Your task to perform on an android device: Open Maps and search for coffee Image 0: 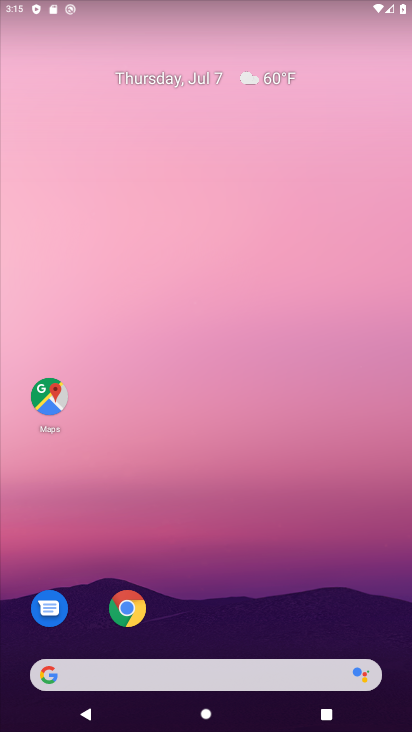
Step 0: click (49, 392)
Your task to perform on an android device: Open Maps and search for coffee Image 1: 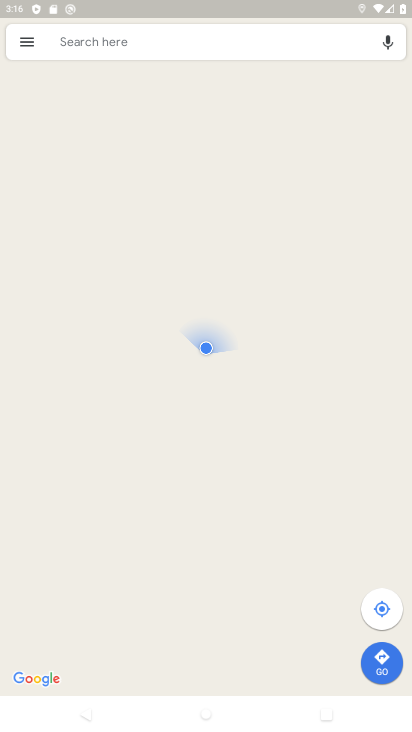
Step 1: click (173, 39)
Your task to perform on an android device: Open Maps and search for coffee Image 2: 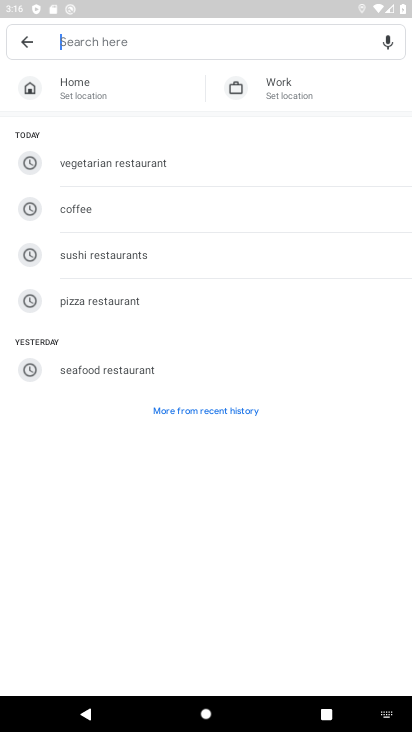
Step 2: type "coffee"
Your task to perform on an android device: Open Maps and search for coffee Image 3: 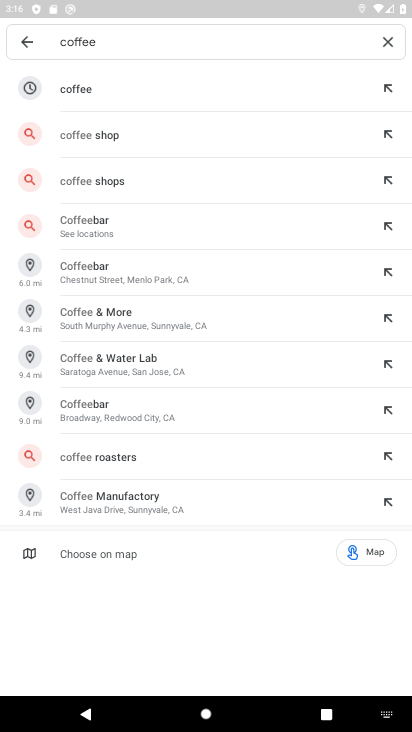
Step 3: click (69, 89)
Your task to perform on an android device: Open Maps and search for coffee Image 4: 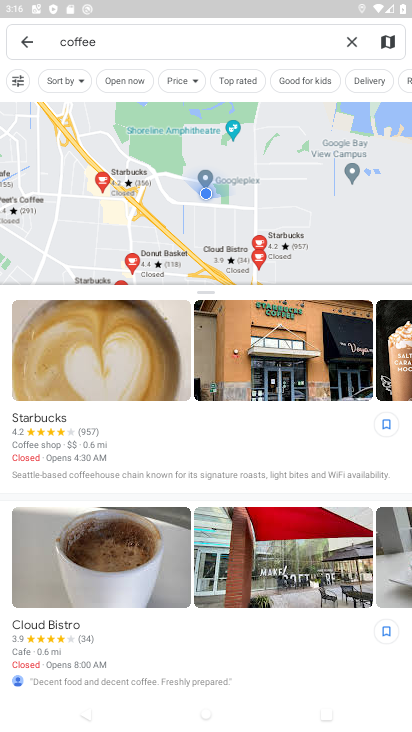
Step 4: task complete